Your task to perform on an android device: turn on wifi Image 0: 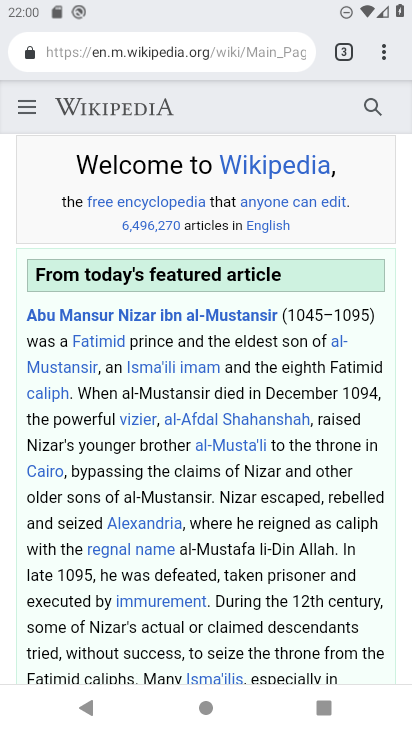
Step 0: press home button
Your task to perform on an android device: turn on wifi Image 1: 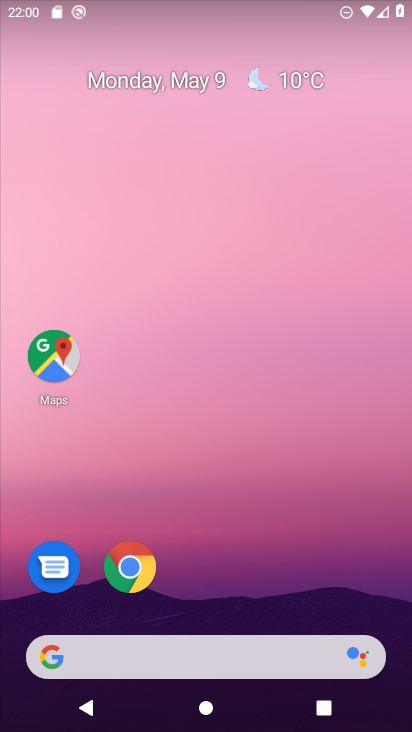
Step 1: drag from (259, 497) to (245, 17)
Your task to perform on an android device: turn on wifi Image 2: 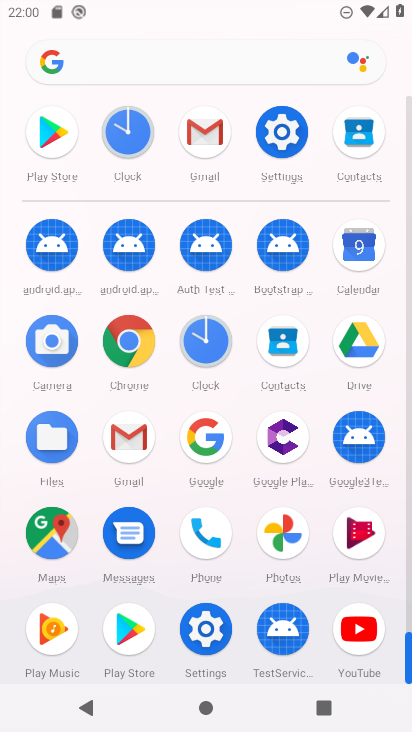
Step 2: click (281, 118)
Your task to perform on an android device: turn on wifi Image 3: 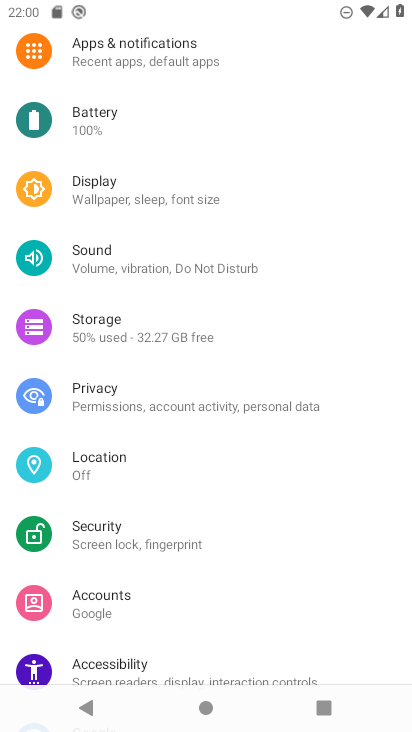
Step 3: drag from (260, 160) to (271, 367)
Your task to perform on an android device: turn on wifi Image 4: 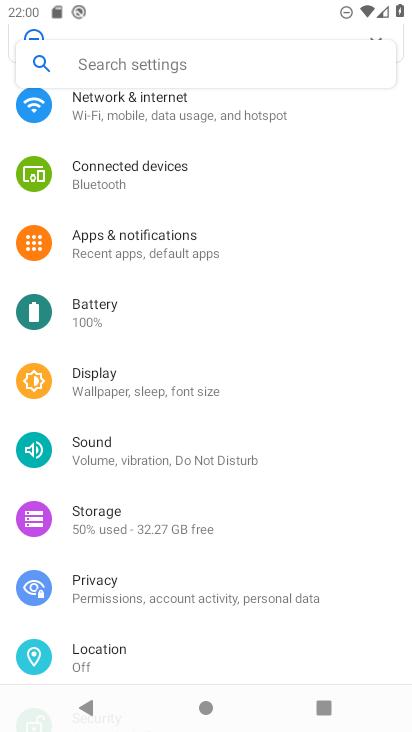
Step 4: click (275, 109)
Your task to perform on an android device: turn on wifi Image 5: 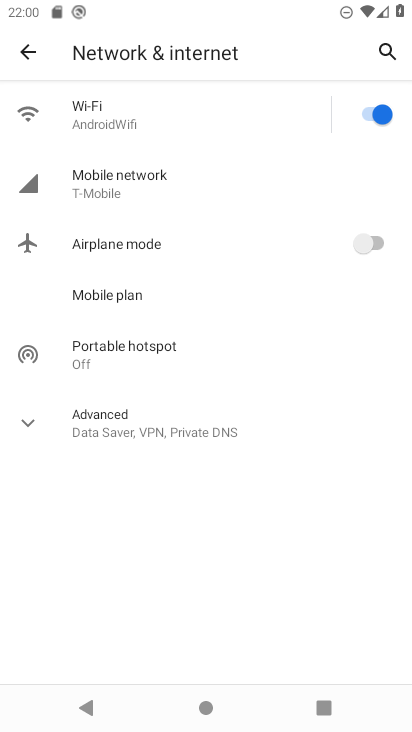
Step 5: task complete